Your task to perform on an android device: turn on showing notifications on the lock screen Image 0: 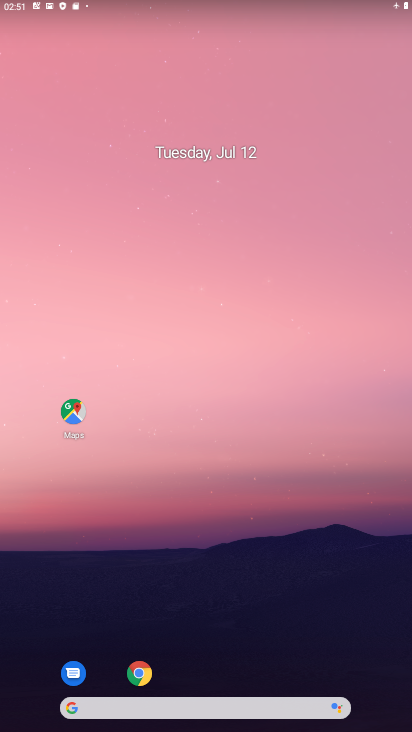
Step 0: press home button
Your task to perform on an android device: turn on showing notifications on the lock screen Image 1: 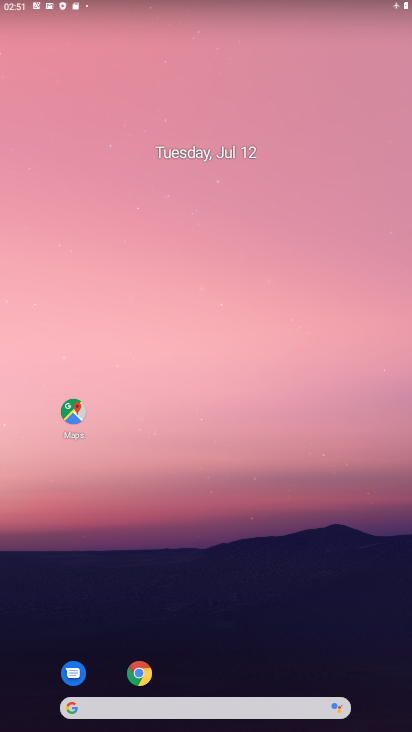
Step 1: click (250, 710)
Your task to perform on an android device: turn on showing notifications on the lock screen Image 2: 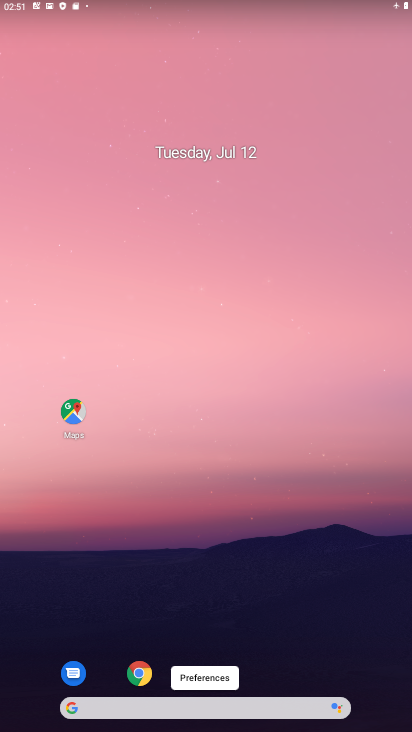
Step 2: click (249, 709)
Your task to perform on an android device: turn on showing notifications on the lock screen Image 3: 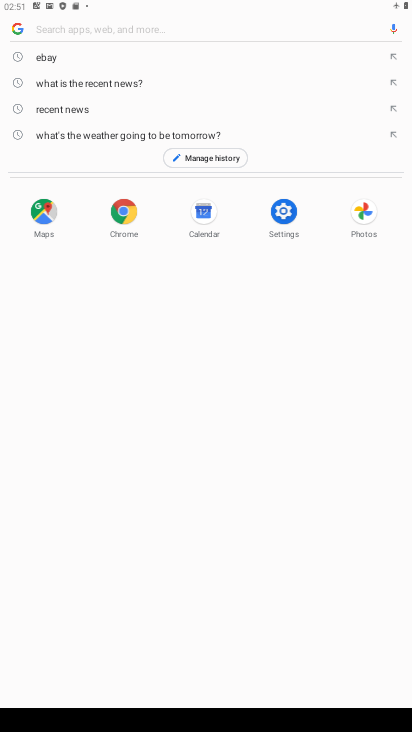
Step 3: click (15, 26)
Your task to perform on an android device: turn on showing notifications on the lock screen Image 4: 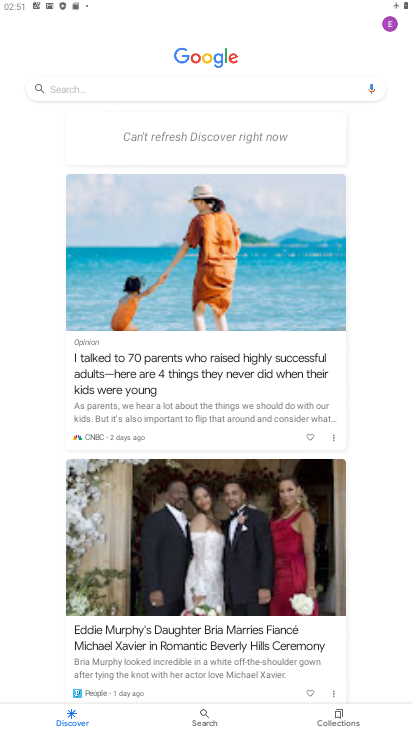
Step 4: task complete